Your task to perform on an android device: Open battery settings Image 0: 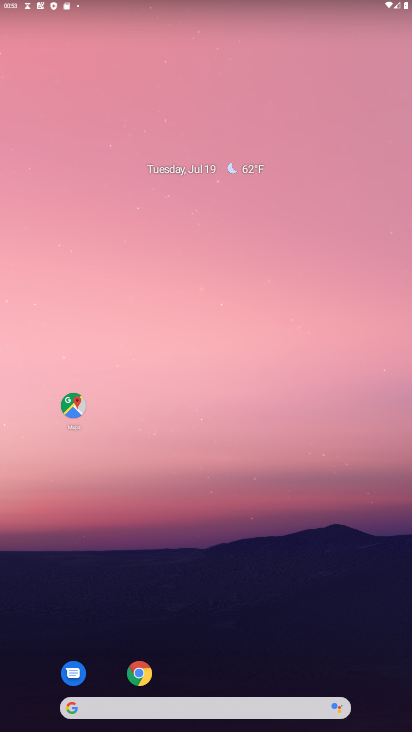
Step 0: drag from (270, 599) to (269, 288)
Your task to perform on an android device: Open battery settings Image 1: 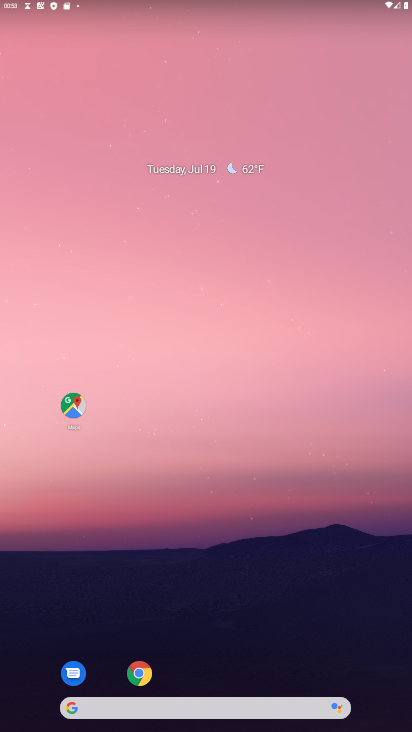
Step 1: drag from (292, 618) to (285, 165)
Your task to perform on an android device: Open battery settings Image 2: 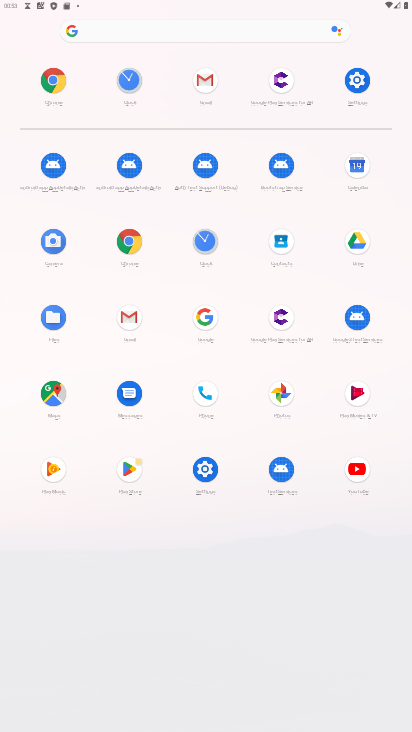
Step 2: click (352, 81)
Your task to perform on an android device: Open battery settings Image 3: 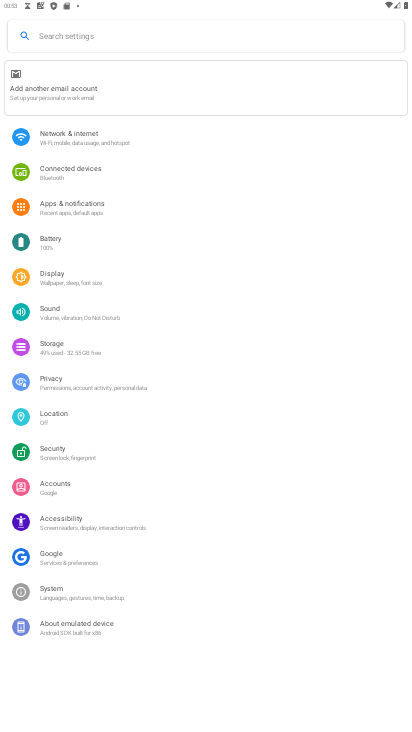
Step 3: click (53, 243)
Your task to perform on an android device: Open battery settings Image 4: 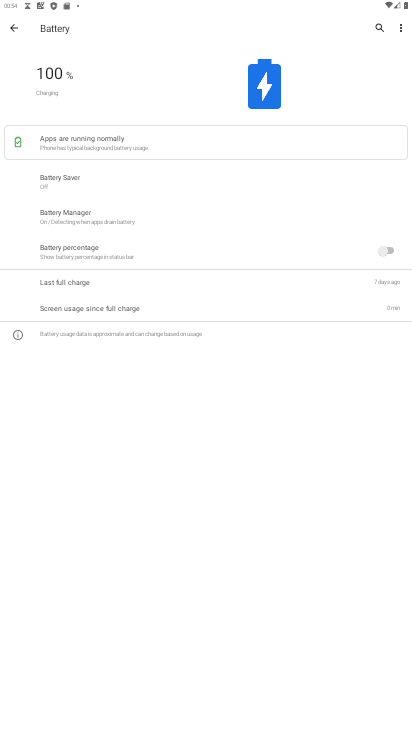
Step 4: task complete